Your task to perform on an android device: Add razer blade to the cart on newegg.com Image 0: 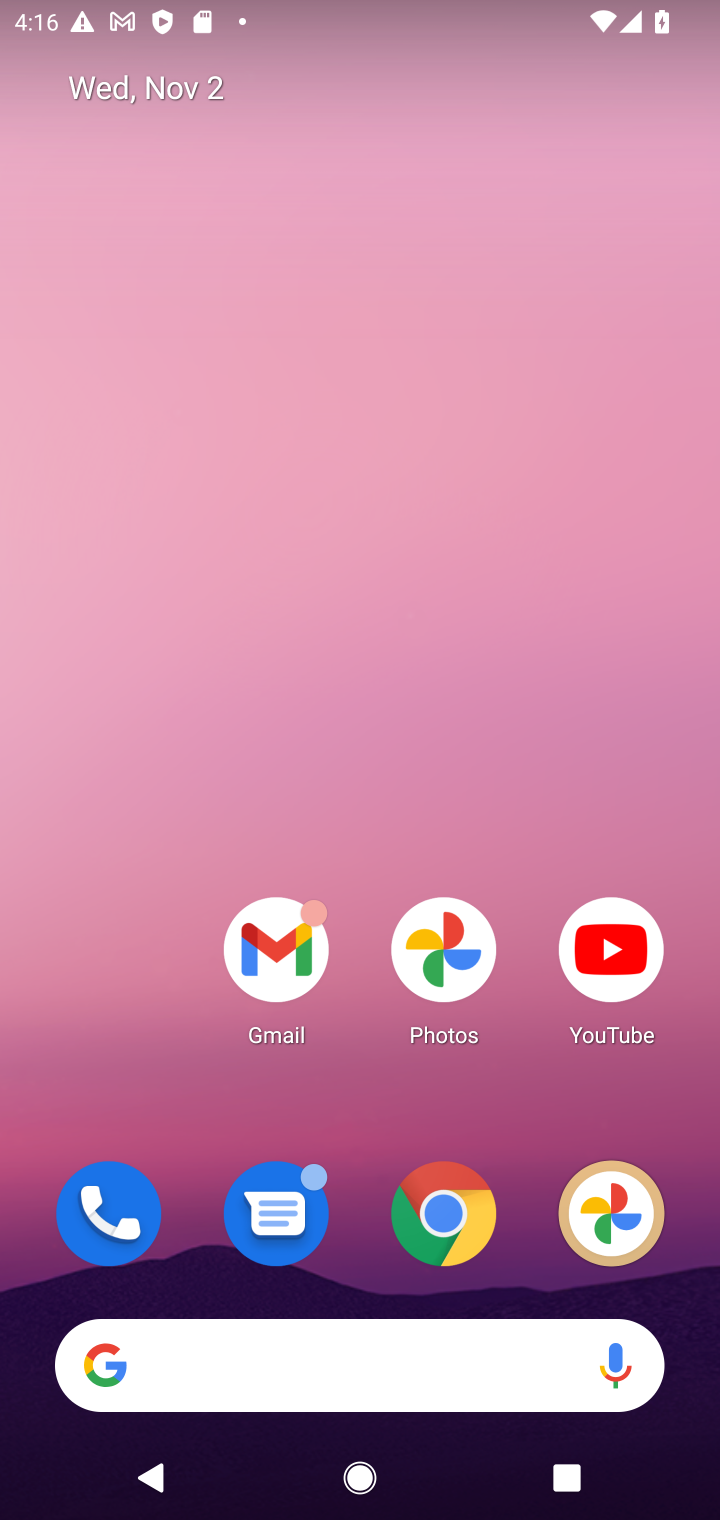
Step 0: drag from (386, 1162) to (473, 485)
Your task to perform on an android device: Add razer blade to the cart on newegg.com Image 1: 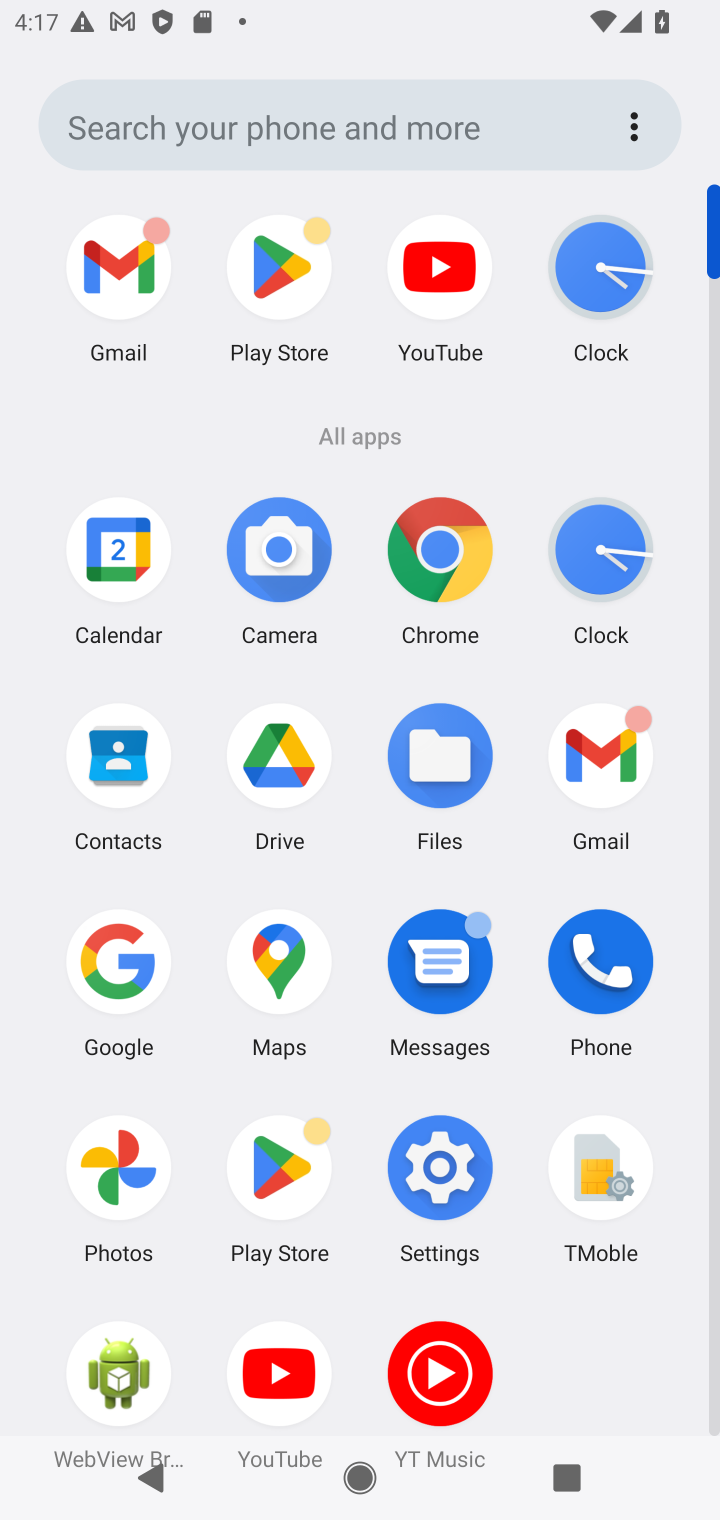
Step 1: click (115, 974)
Your task to perform on an android device: Add razer blade to the cart on newegg.com Image 2: 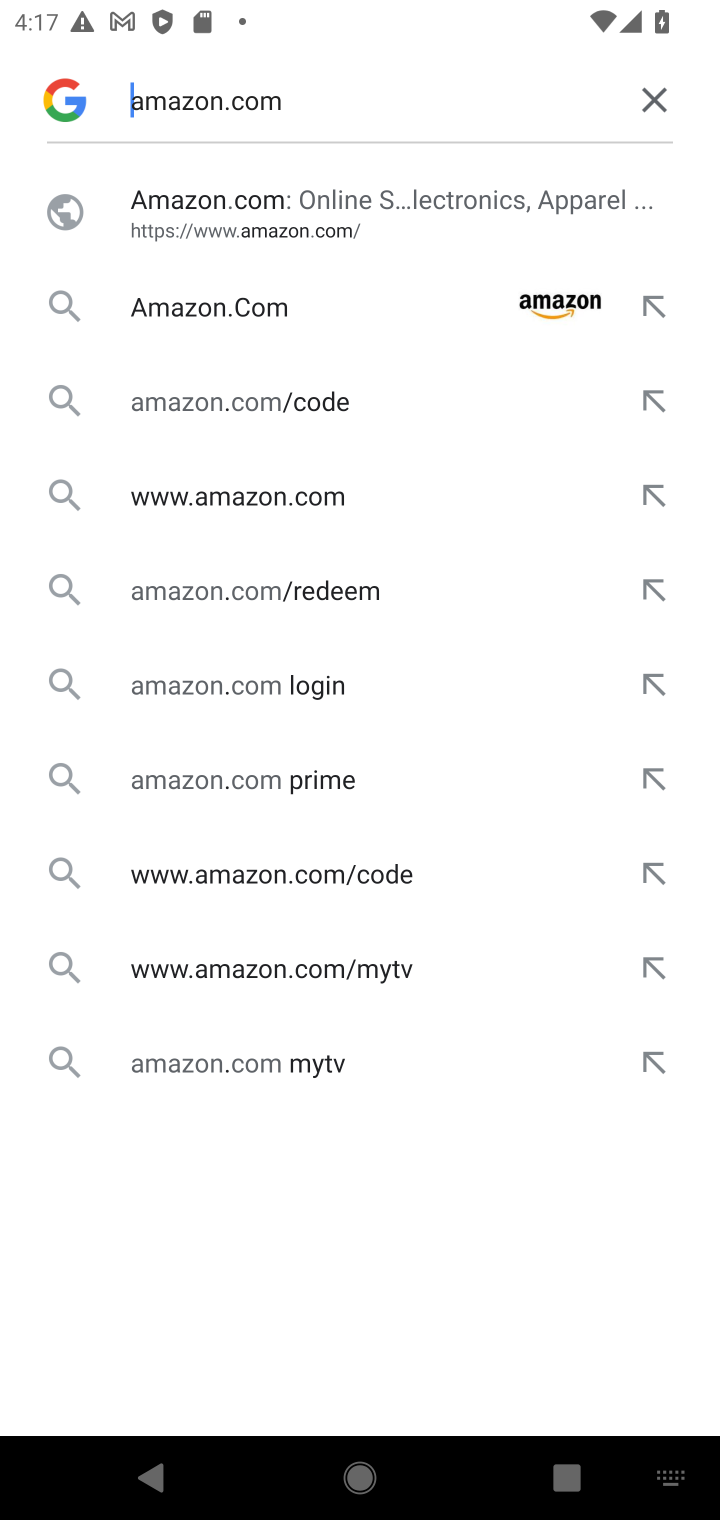
Step 2: click (660, 98)
Your task to perform on an android device: Add razer blade to the cart on newegg.com Image 3: 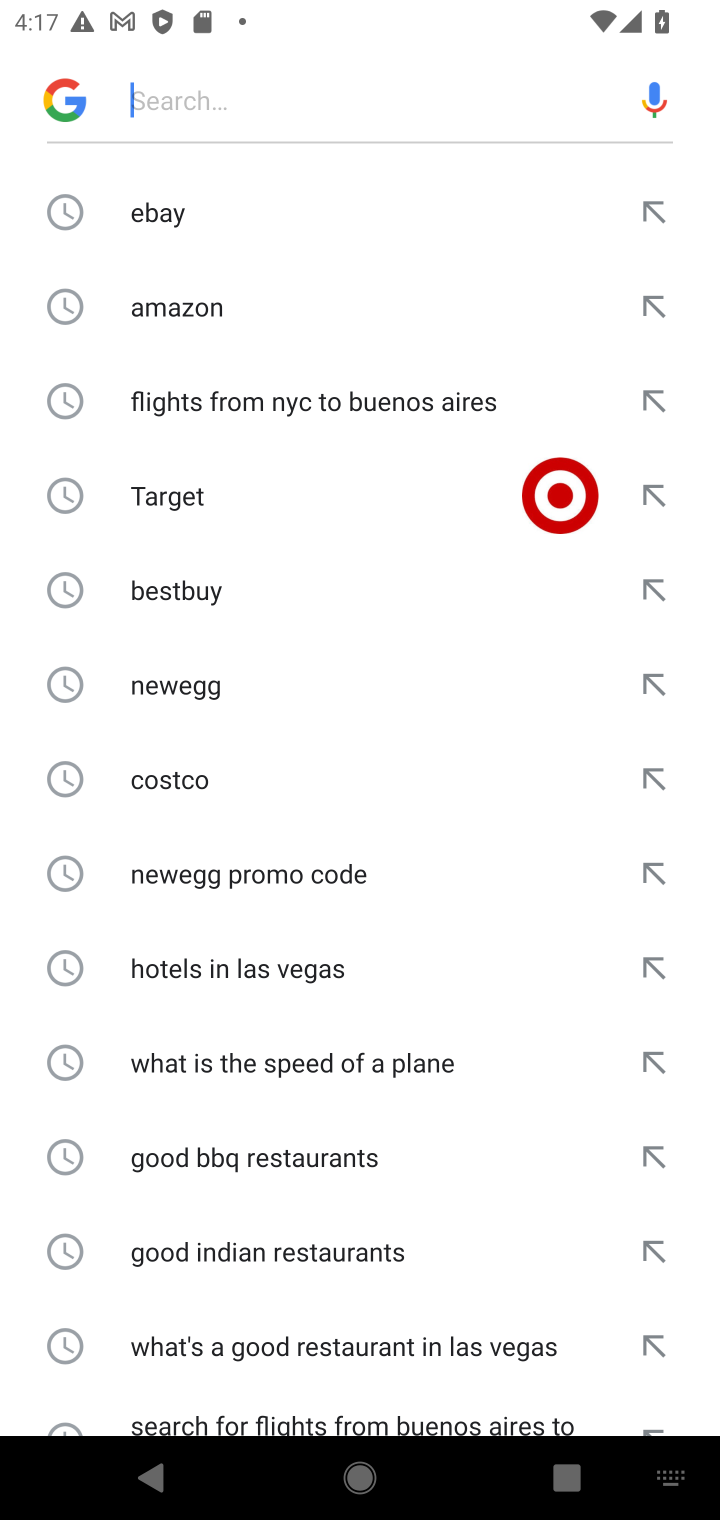
Step 3: type "newegg.com"
Your task to perform on an android device: Add razer blade to the cart on newegg.com Image 4: 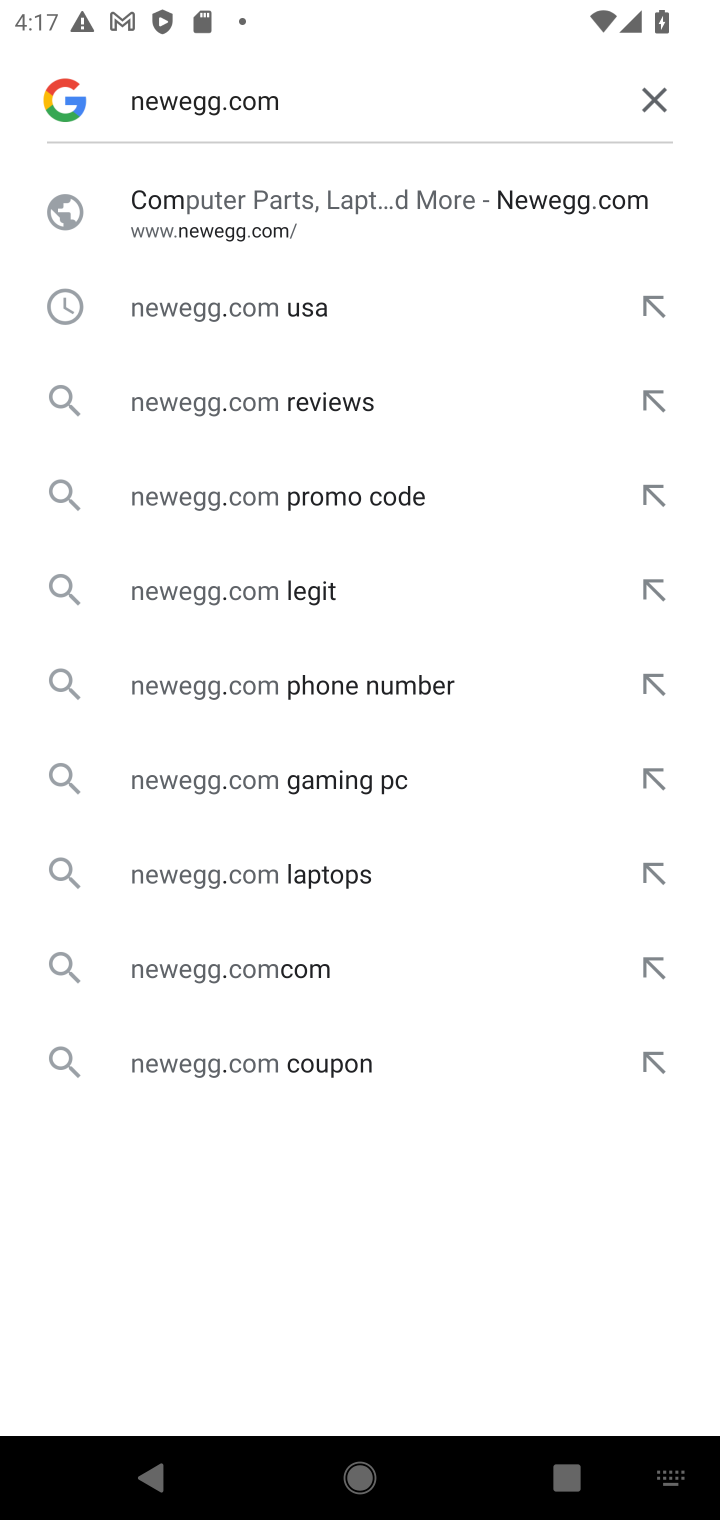
Step 4: click (385, 211)
Your task to perform on an android device: Add razer blade to the cart on newegg.com Image 5: 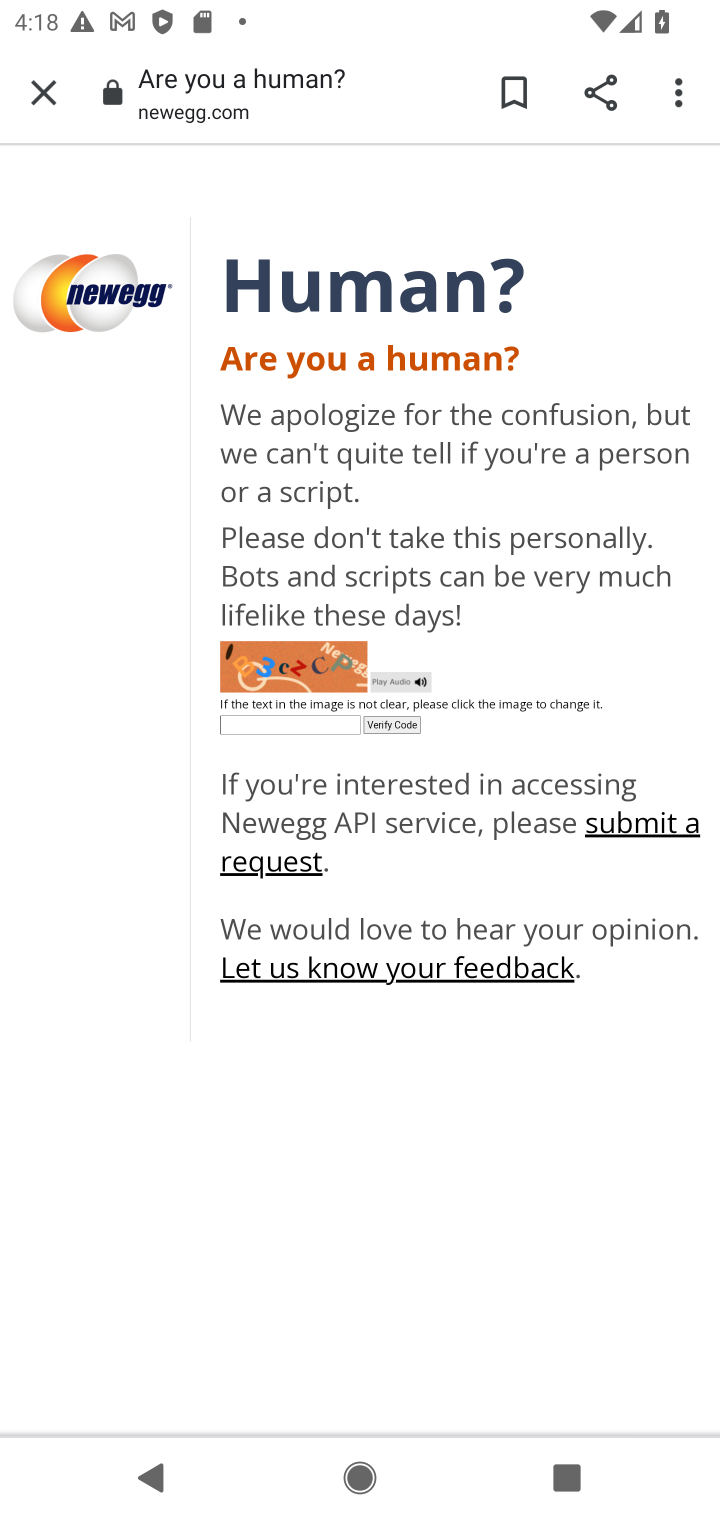
Step 5: task complete